Your task to perform on an android device: change keyboard looks Image 0: 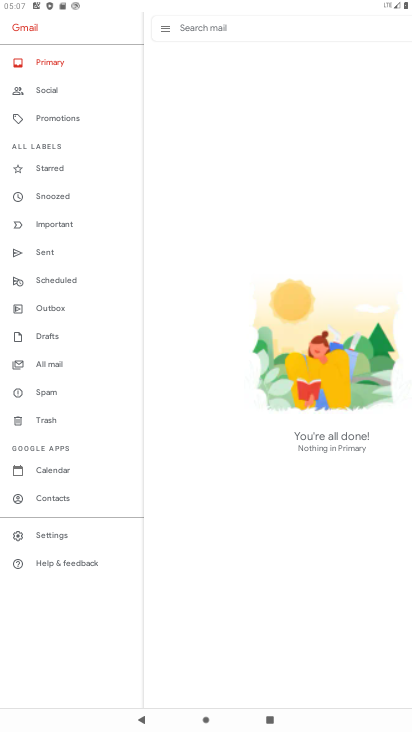
Step 0: press home button
Your task to perform on an android device: change keyboard looks Image 1: 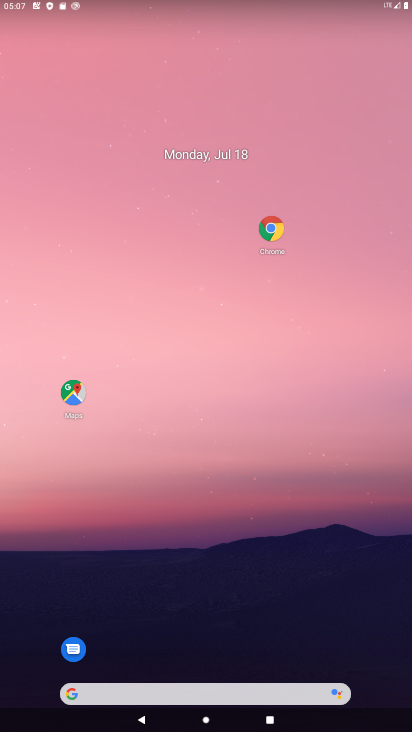
Step 1: drag from (194, 625) to (182, 248)
Your task to perform on an android device: change keyboard looks Image 2: 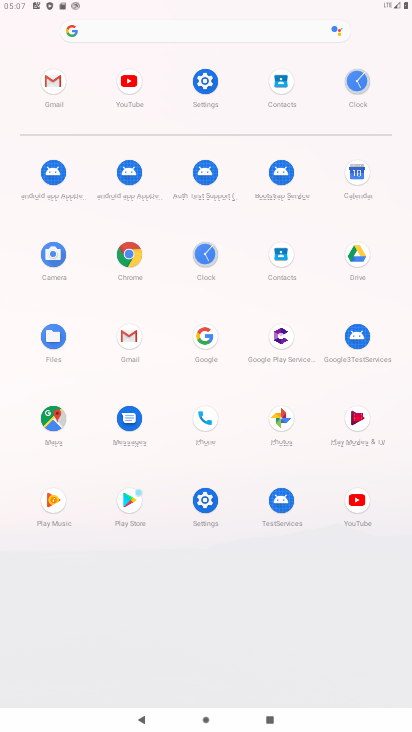
Step 2: click (210, 92)
Your task to perform on an android device: change keyboard looks Image 3: 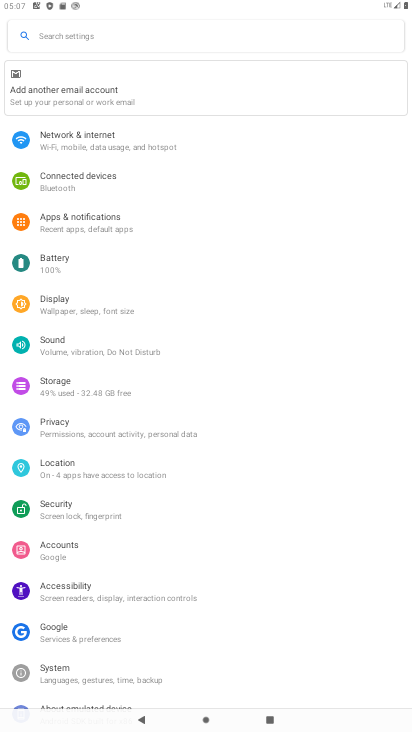
Step 3: drag from (120, 657) to (128, 104)
Your task to perform on an android device: change keyboard looks Image 4: 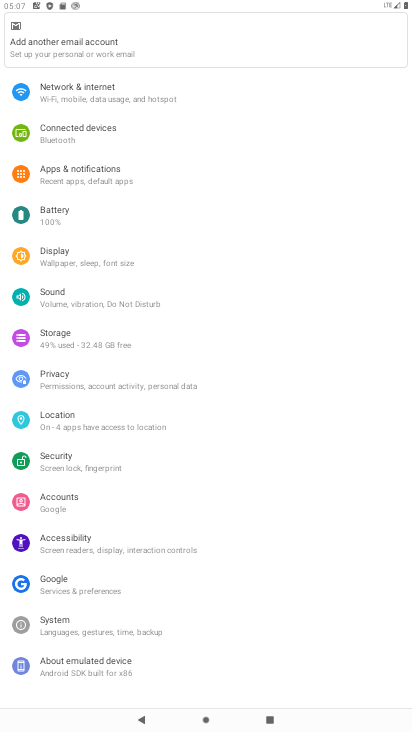
Step 4: click (53, 667)
Your task to perform on an android device: change keyboard looks Image 5: 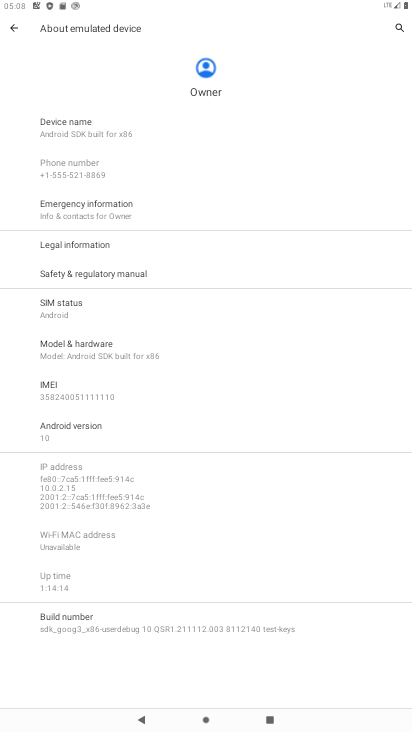
Step 5: click (18, 22)
Your task to perform on an android device: change keyboard looks Image 6: 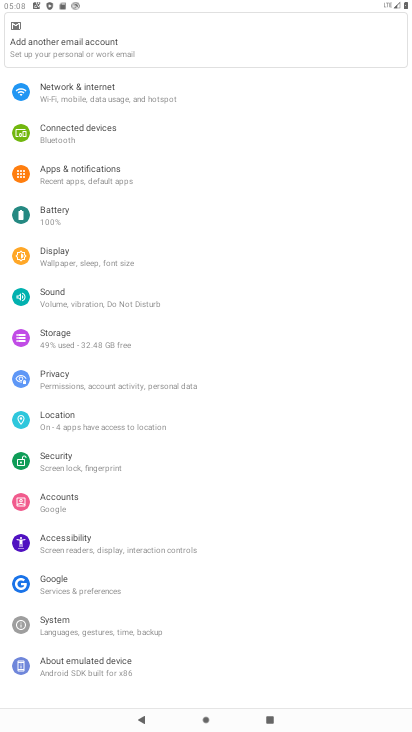
Step 6: click (61, 625)
Your task to perform on an android device: change keyboard looks Image 7: 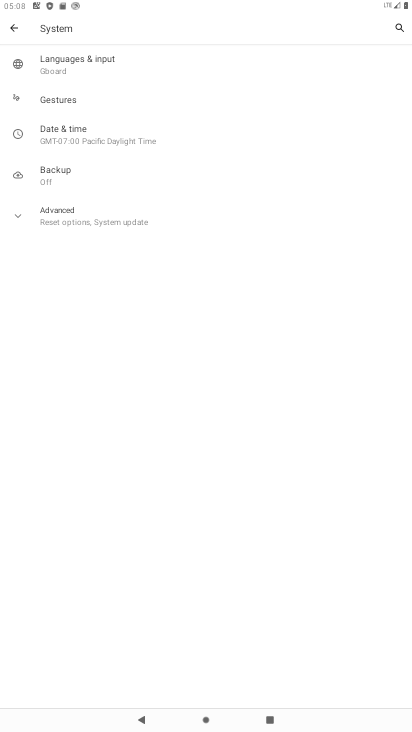
Step 7: click (125, 68)
Your task to perform on an android device: change keyboard looks Image 8: 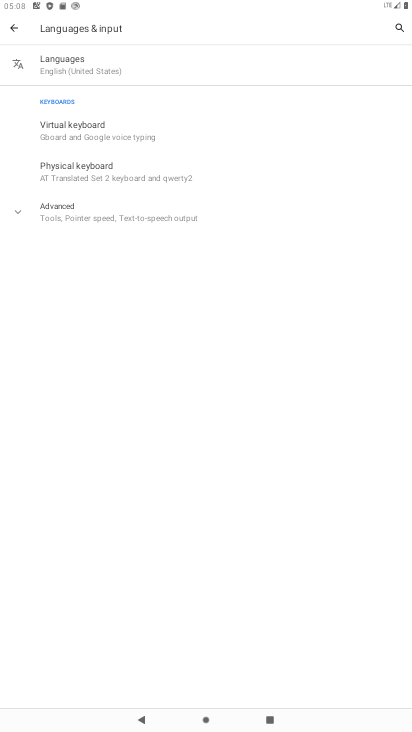
Step 8: click (138, 138)
Your task to perform on an android device: change keyboard looks Image 9: 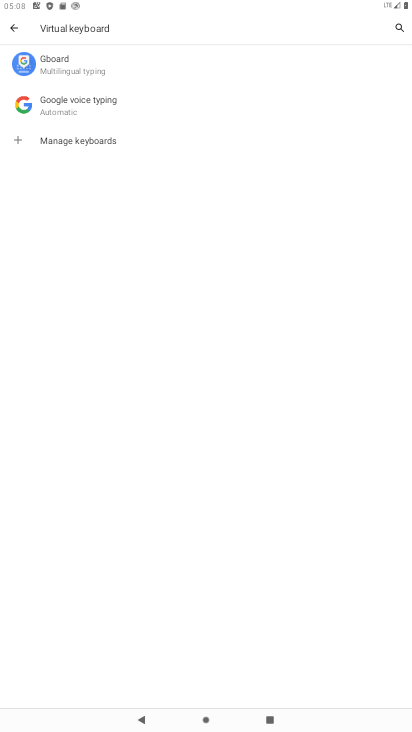
Step 9: click (88, 82)
Your task to perform on an android device: change keyboard looks Image 10: 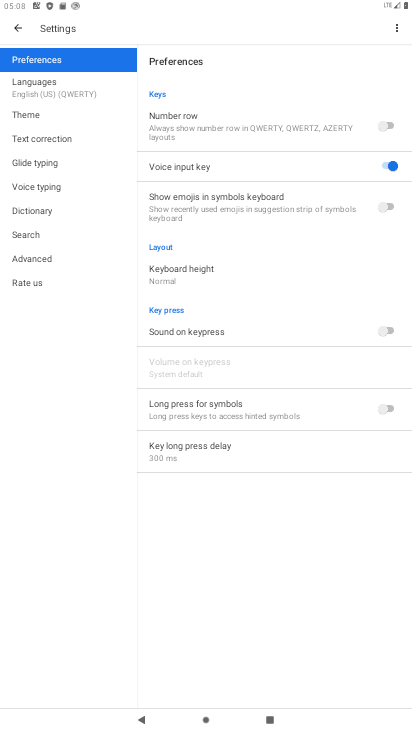
Step 10: click (37, 116)
Your task to perform on an android device: change keyboard looks Image 11: 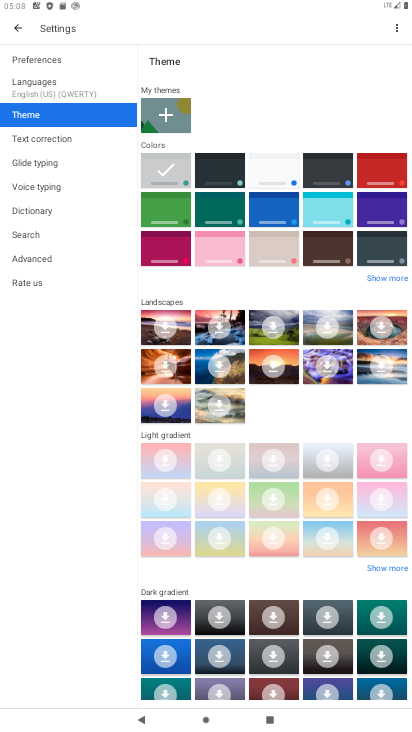
Step 11: click (385, 690)
Your task to perform on an android device: change keyboard looks Image 12: 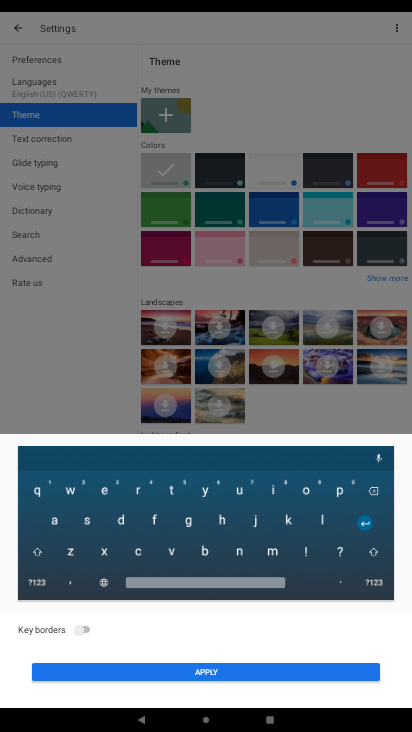
Step 12: click (193, 671)
Your task to perform on an android device: change keyboard looks Image 13: 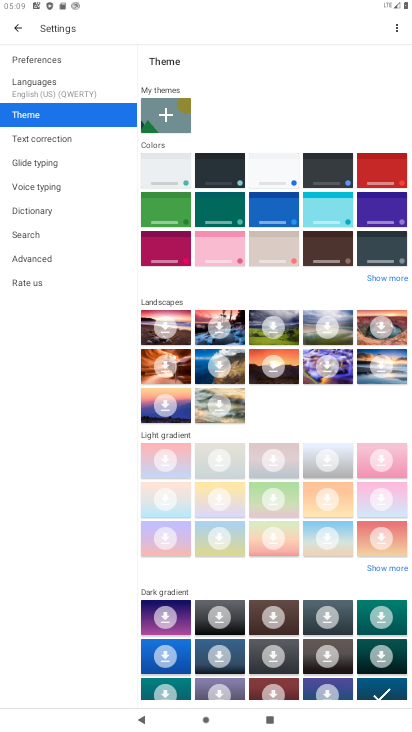
Step 13: task complete